Your task to perform on an android device: install app "Venmo" Image 0: 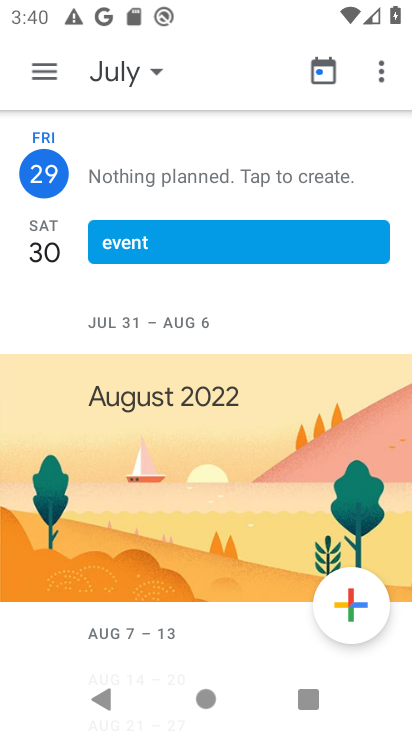
Step 0: press home button
Your task to perform on an android device: install app "Venmo" Image 1: 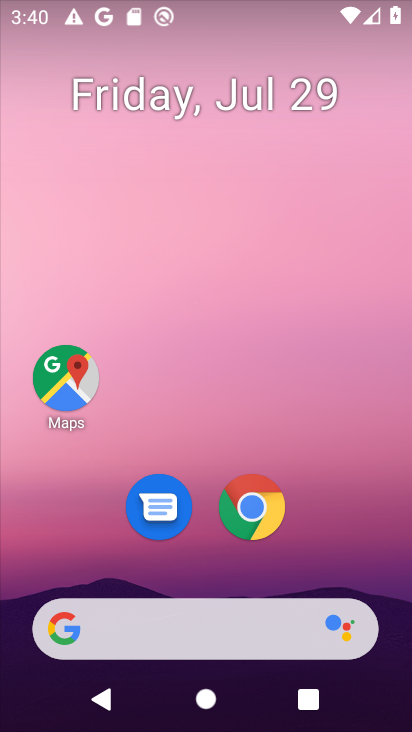
Step 1: click (200, 603)
Your task to perform on an android device: install app "Venmo" Image 2: 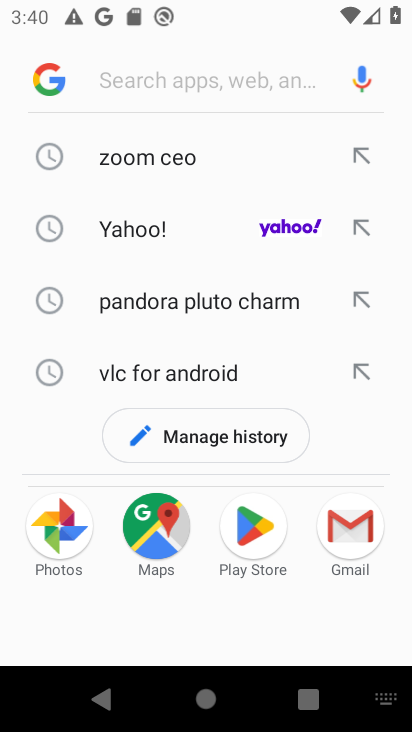
Step 2: type "venmo"
Your task to perform on an android device: install app "Venmo" Image 3: 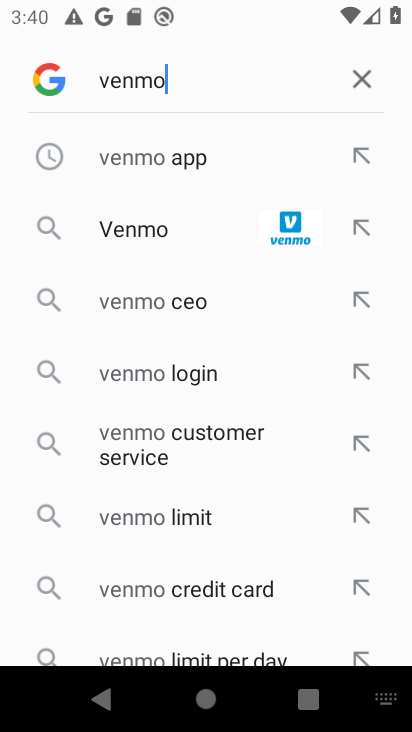
Step 3: click (130, 142)
Your task to perform on an android device: install app "Venmo" Image 4: 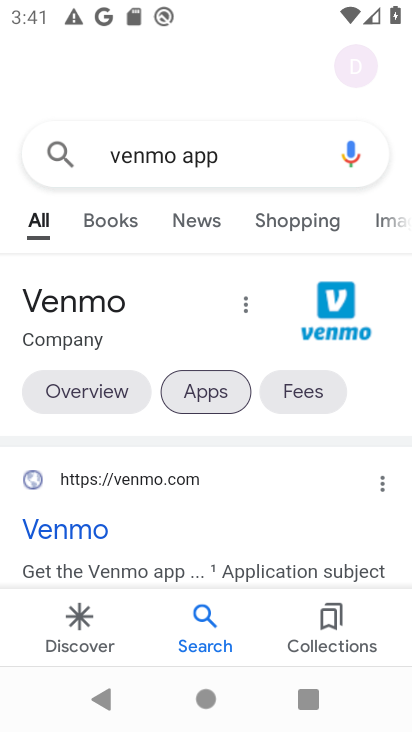
Step 4: task complete